Your task to perform on an android device: open device folders in google photos Image 0: 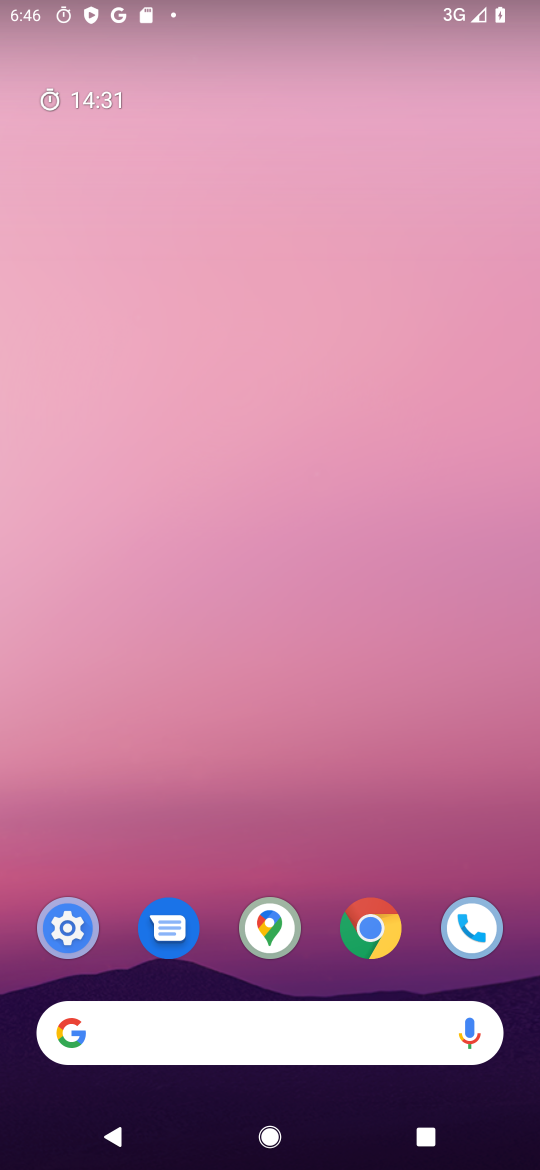
Step 0: press home button
Your task to perform on an android device: open device folders in google photos Image 1: 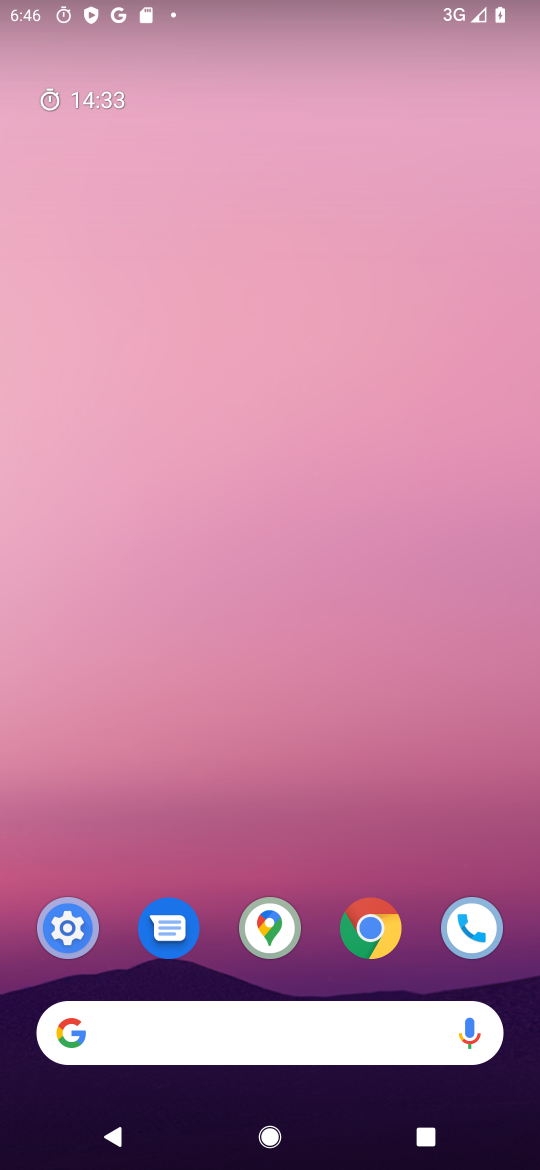
Step 1: drag from (330, 845) to (321, 104)
Your task to perform on an android device: open device folders in google photos Image 2: 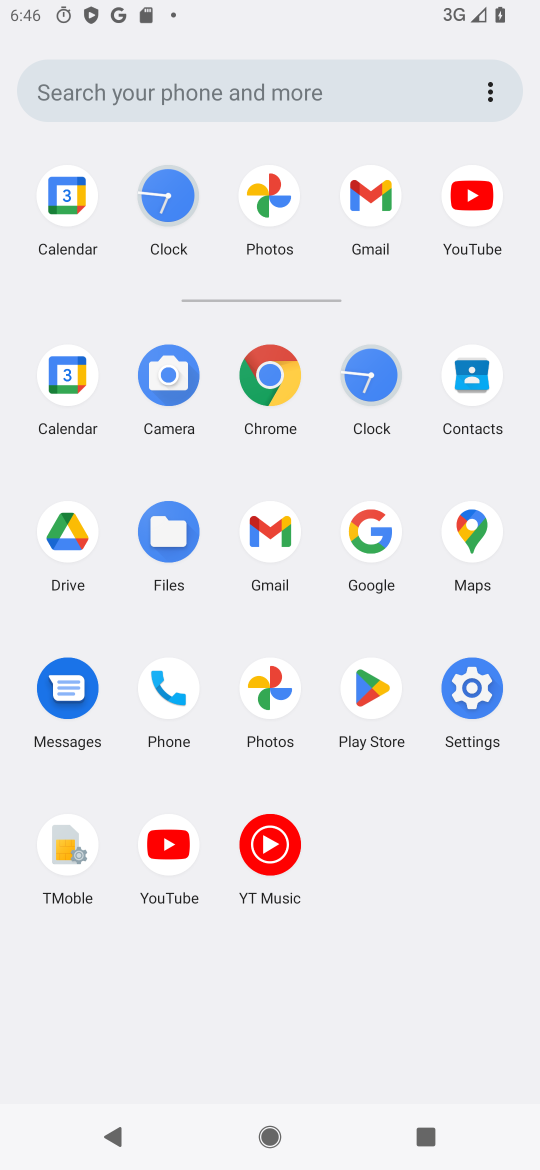
Step 2: click (276, 687)
Your task to perform on an android device: open device folders in google photos Image 3: 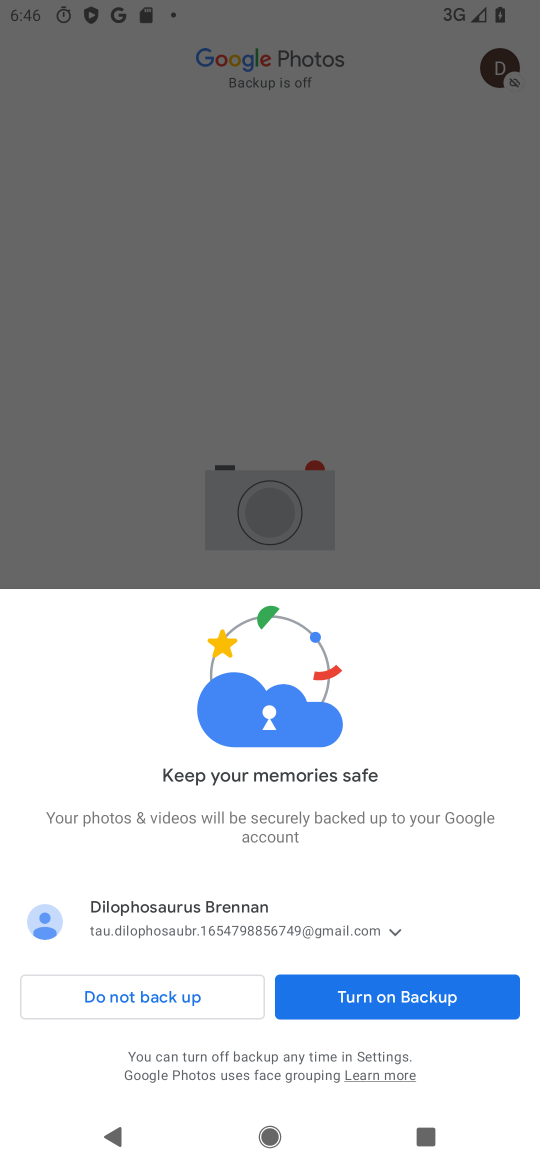
Step 3: click (198, 1004)
Your task to perform on an android device: open device folders in google photos Image 4: 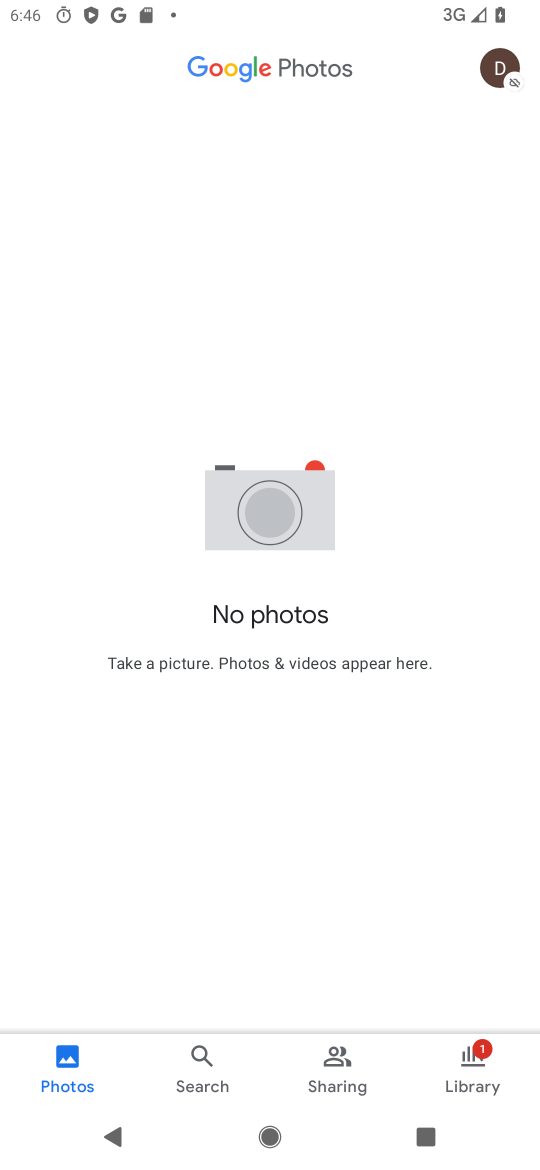
Step 4: click (483, 1069)
Your task to perform on an android device: open device folders in google photos Image 5: 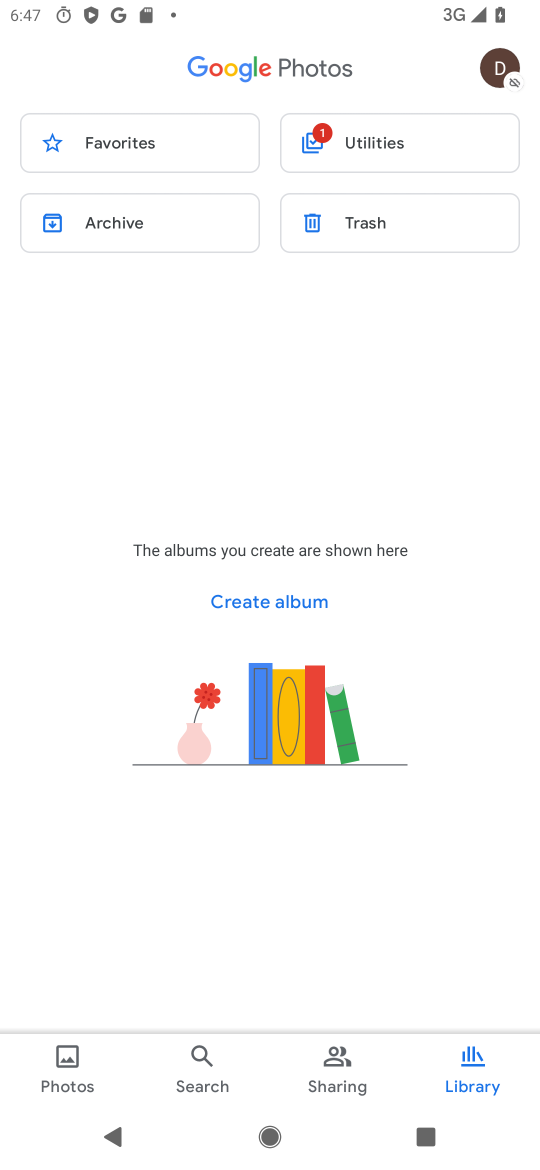
Step 5: task complete